Your task to perform on an android device: Is it going to rain tomorrow? Image 0: 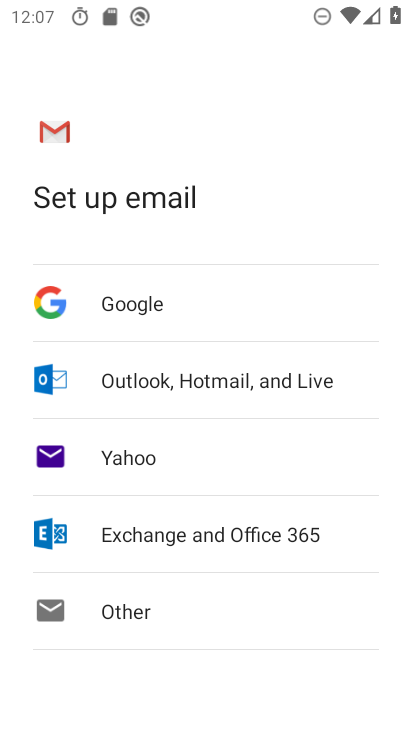
Step 0: press back button
Your task to perform on an android device: Is it going to rain tomorrow? Image 1: 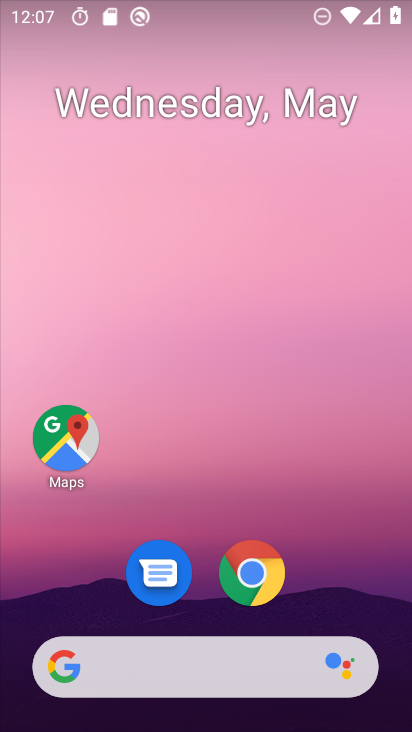
Step 1: drag from (353, 589) to (311, 18)
Your task to perform on an android device: Is it going to rain tomorrow? Image 2: 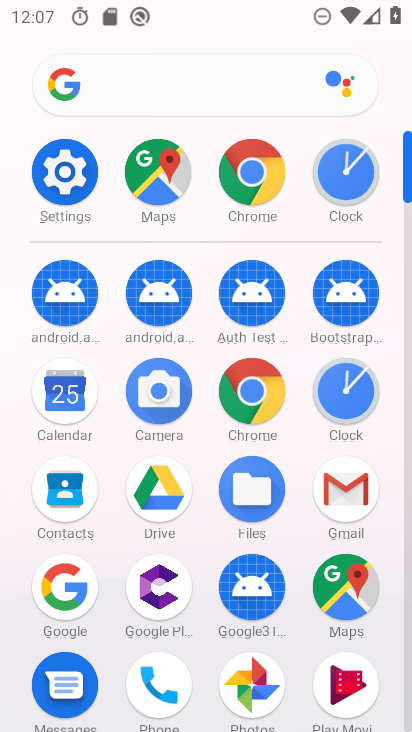
Step 2: drag from (18, 605) to (18, 310)
Your task to perform on an android device: Is it going to rain tomorrow? Image 3: 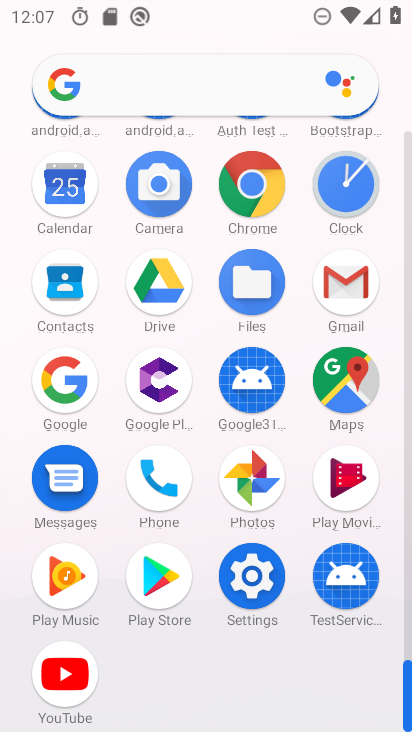
Step 3: click (257, 178)
Your task to perform on an android device: Is it going to rain tomorrow? Image 4: 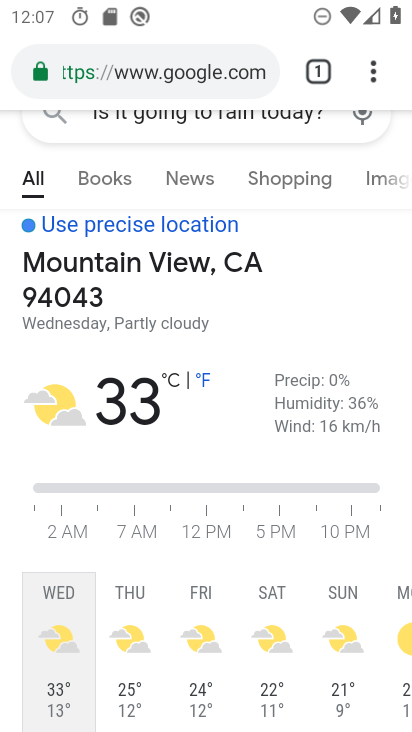
Step 4: click (224, 53)
Your task to perform on an android device: Is it going to rain tomorrow? Image 5: 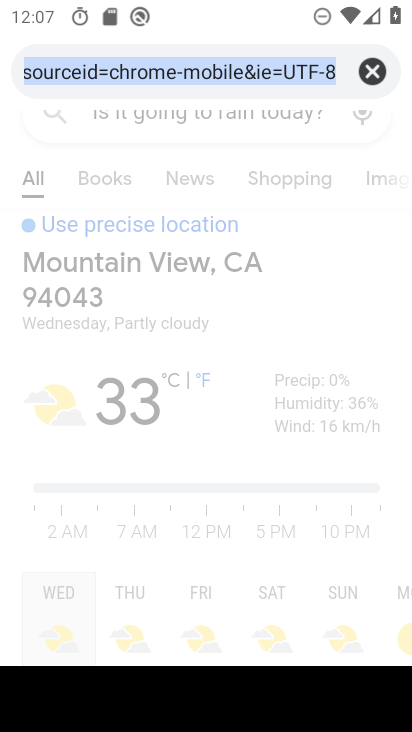
Step 5: click (368, 64)
Your task to perform on an android device: Is it going to rain tomorrow? Image 6: 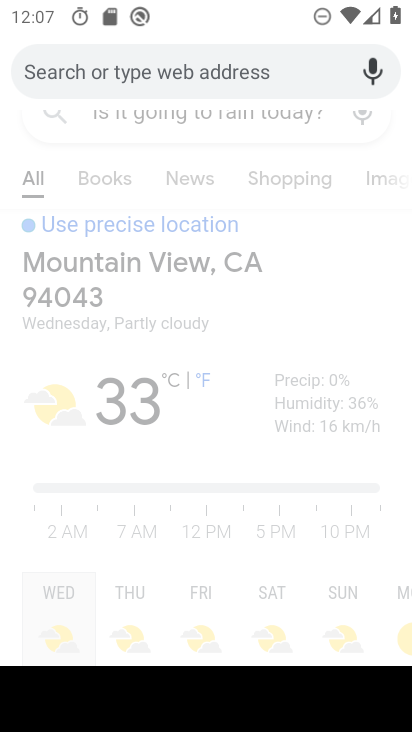
Step 6: type "Is it going to rain tomorrow?"
Your task to perform on an android device: Is it going to rain tomorrow? Image 7: 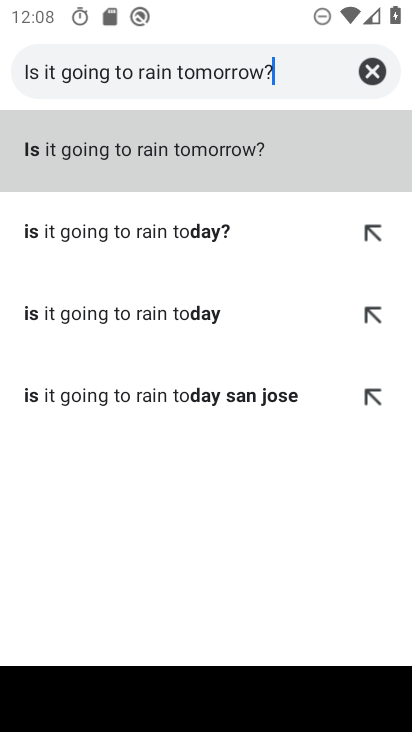
Step 7: type ""
Your task to perform on an android device: Is it going to rain tomorrow? Image 8: 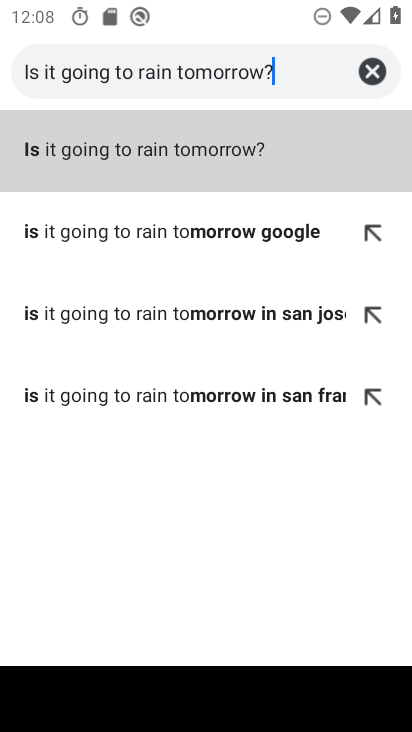
Step 8: click (217, 150)
Your task to perform on an android device: Is it going to rain tomorrow? Image 9: 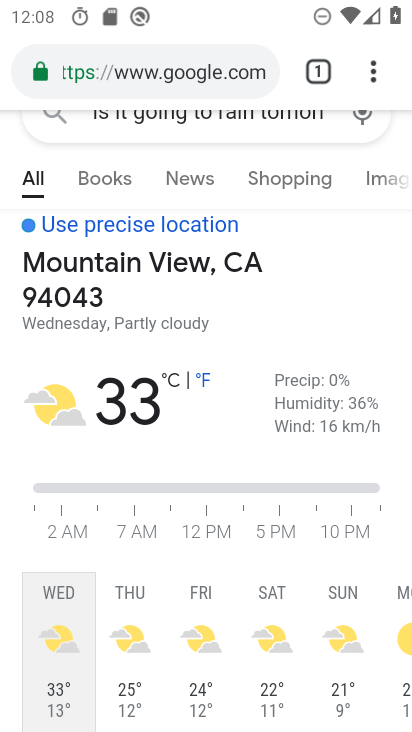
Step 9: task complete